Your task to perform on an android device: Go to privacy settings Image 0: 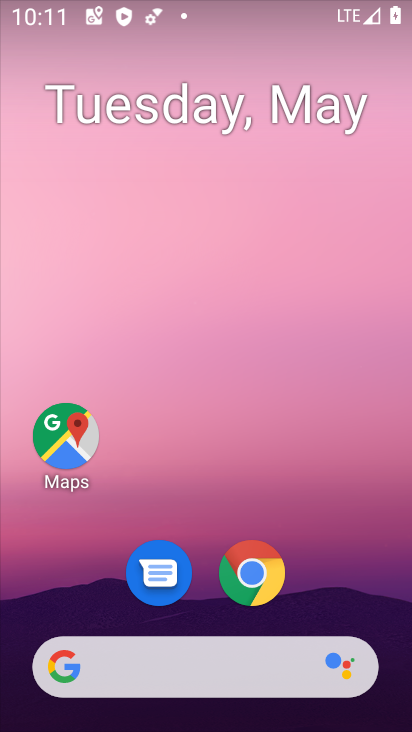
Step 0: drag from (145, 692) to (134, 17)
Your task to perform on an android device: Go to privacy settings Image 1: 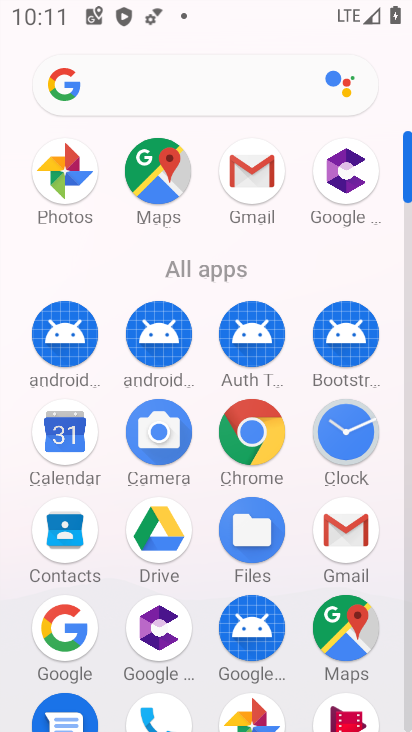
Step 1: drag from (192, 589) to (211, 170)
Your task to perform on an android device: Go to privacy settings Image 2: 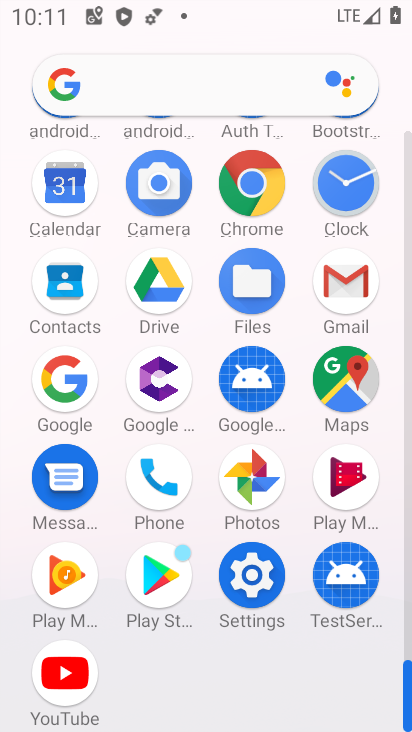
Step 2: click (252, 573)
Your task to perform on an android device: Go to privacy settings Image 3: 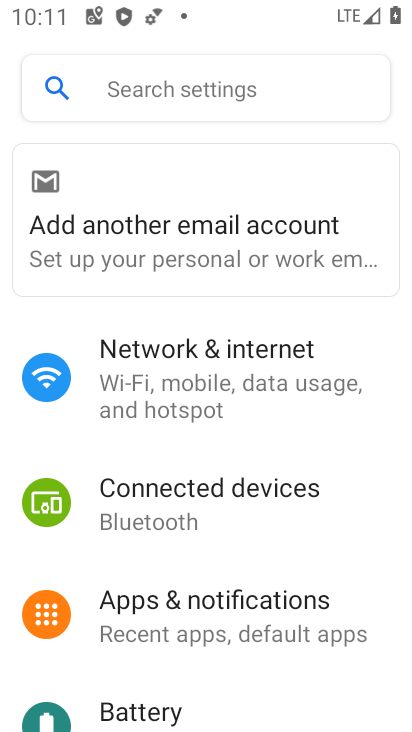
Step 3: drag from (252, 646) to (253, 239)
Your task to perform on an android device: Go to privacy settings Image 4: 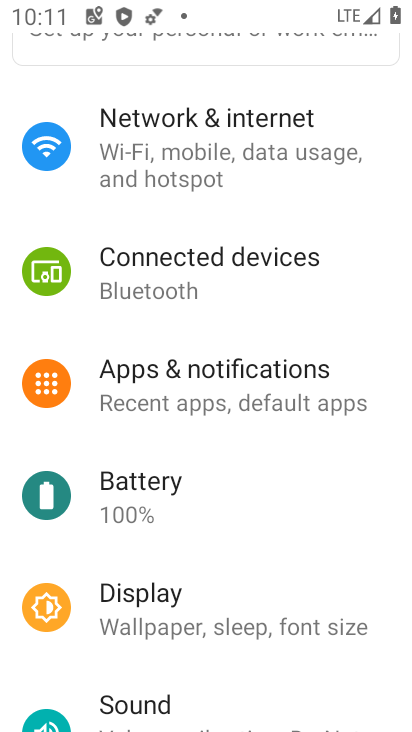
Step 4: drag from (231, 657) to (248, 217)
Your task to perform on an android device: Go to privacy settings Image 5: 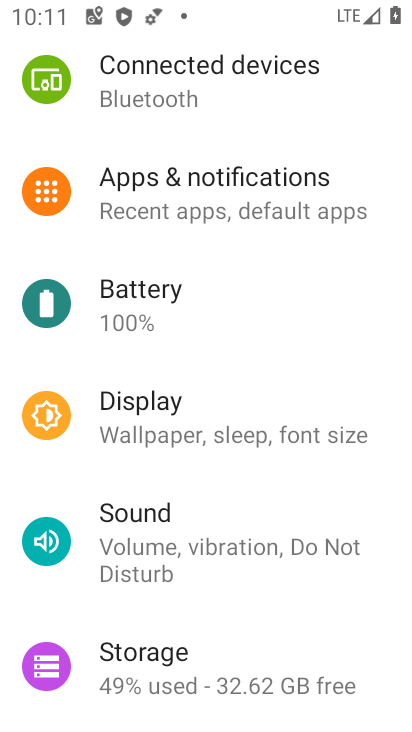
Step 5: drag from (242, 627) to (254, 237)
Your task to perform on an android device: Go to privacy settings Image 6: 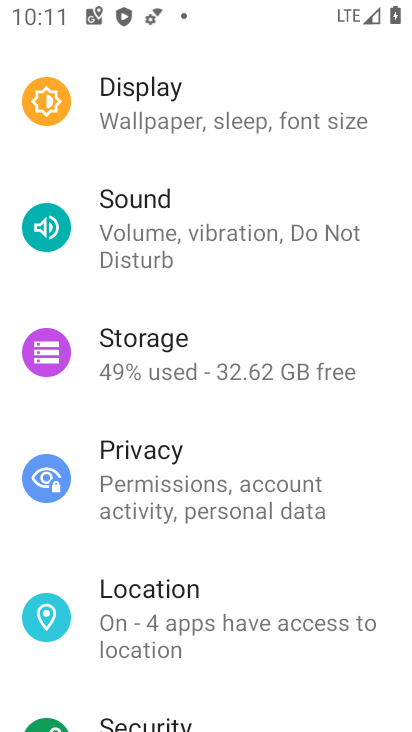
Step 6: drag from (262, 652) to (258, 334)
Your task to perform on an android device: Go to privacy settings Image 7: 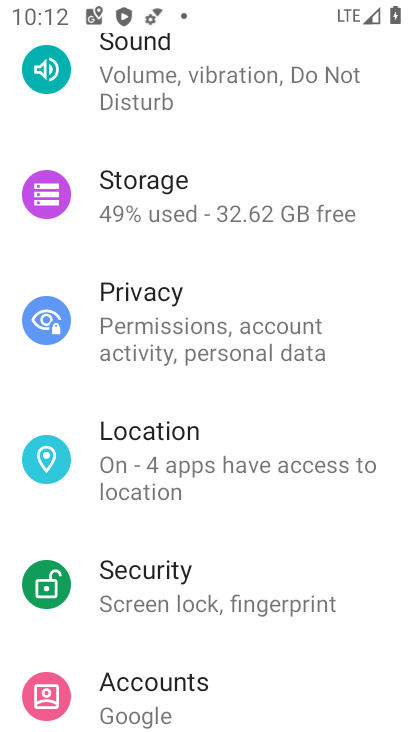
Step 7: click (194, 368)
Your task to perform on an android device: Go to privacy settings Image 8: 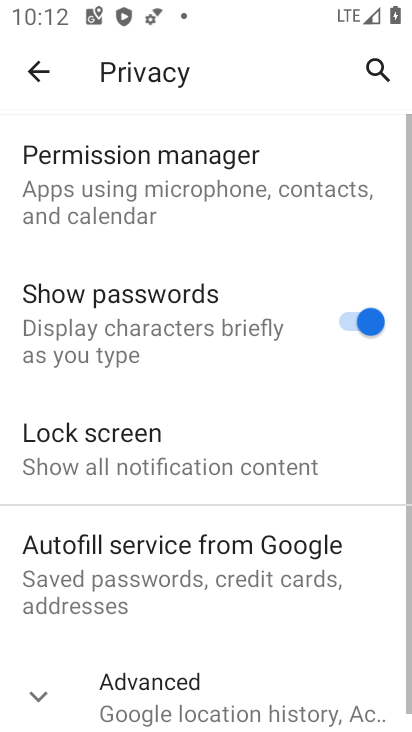
Step 8: task complete